Your task to perform on an android device: find which apps use the phone's location Image 0: 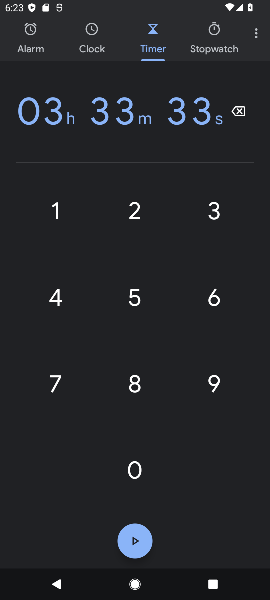
Step 0: press home button
Your task to perform on an android device: find which apps use the phone's location Image 1: 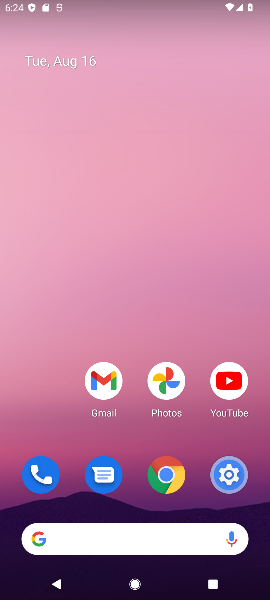
Step 1: drag from (210, 496) to (107, 3)
Your task to perform on an android device: find which apps use the phone's location Image 2: 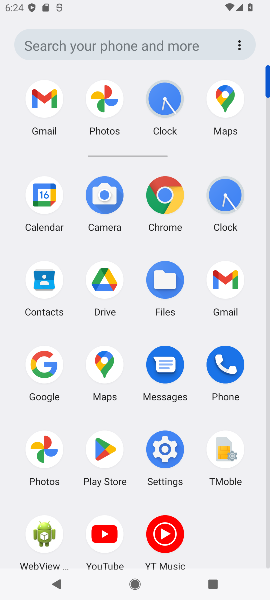
Step 2: click (173, 440)
Your task to perform on an android device: find which apps use the phone's location Image 3: 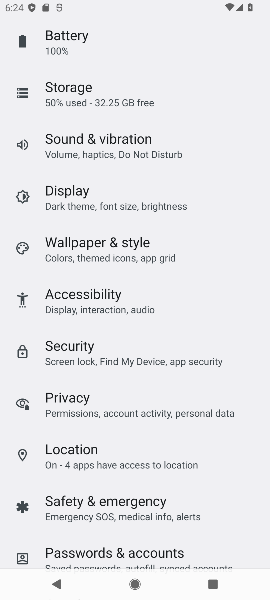
Step 3: task complete